Your task to perform on an android device: uninstall "Google Home" Image 0: 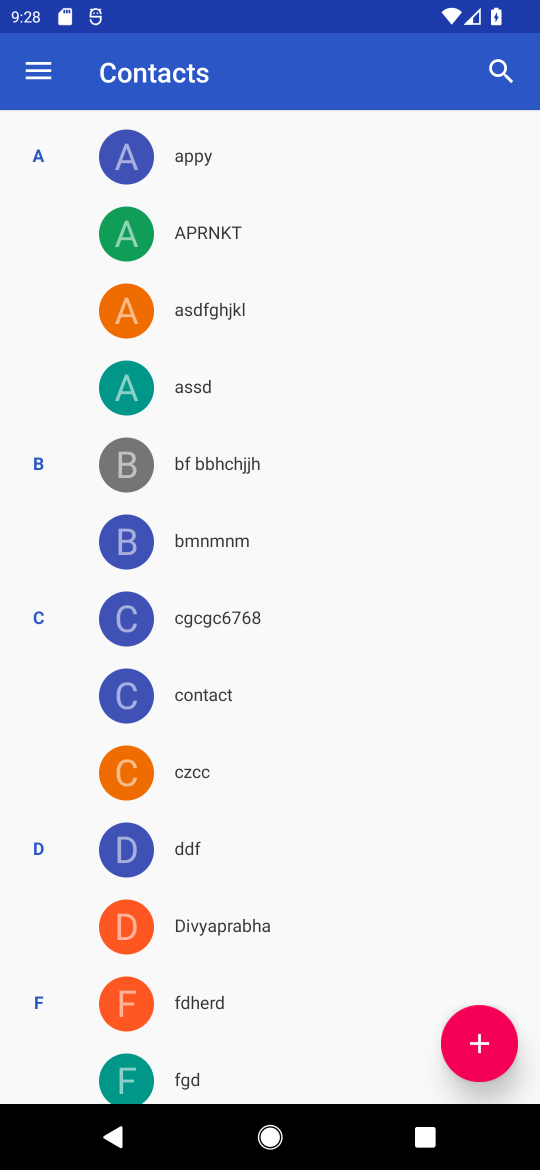
Step 0: press home button
Your task to perform on an android device: uninstall "Google Home" Image 1: 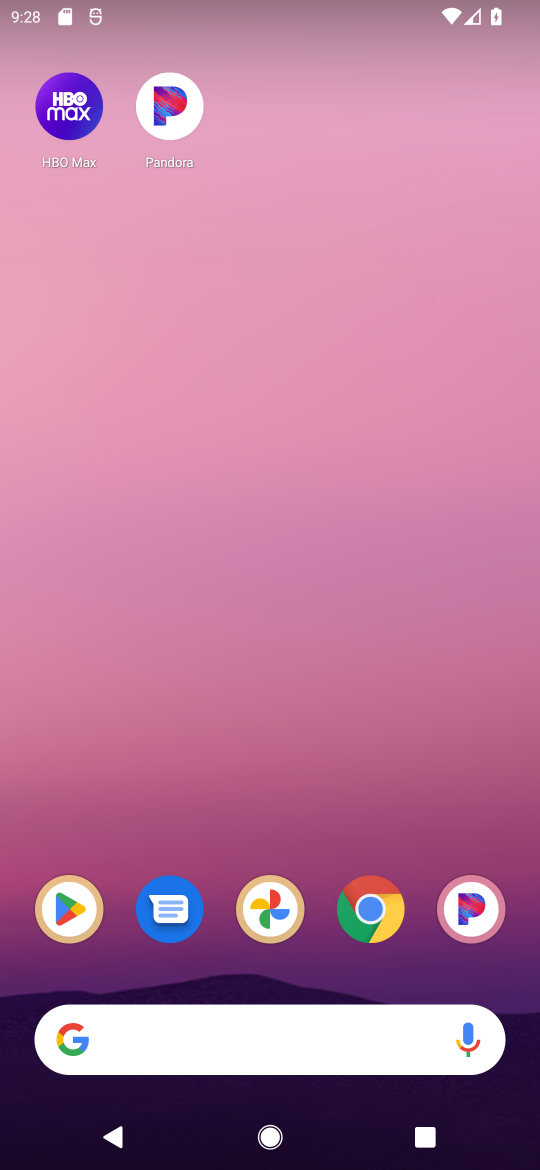
Step 1: click (68, 908)
Your task to perform on an android device: uninstall "Google Home" Image 2: 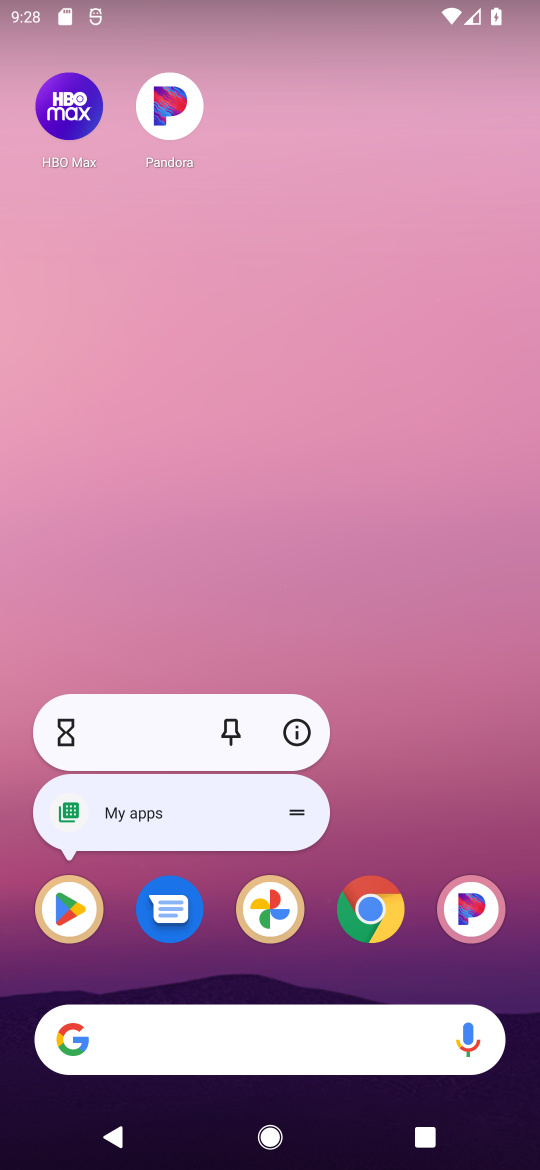
Step 2: click (63, 909)
Your task to perform on an android device: uninstall "Google Home" Image 3: 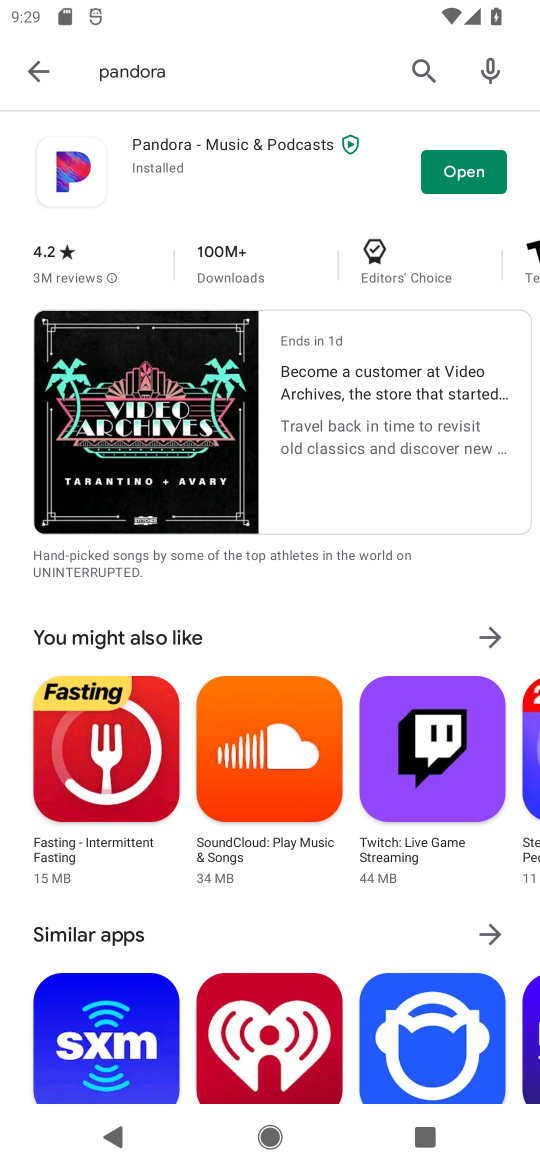
Step 3: click (198, 75)
Your task to perform on an android device: uninstall "Google Home" Image 4: 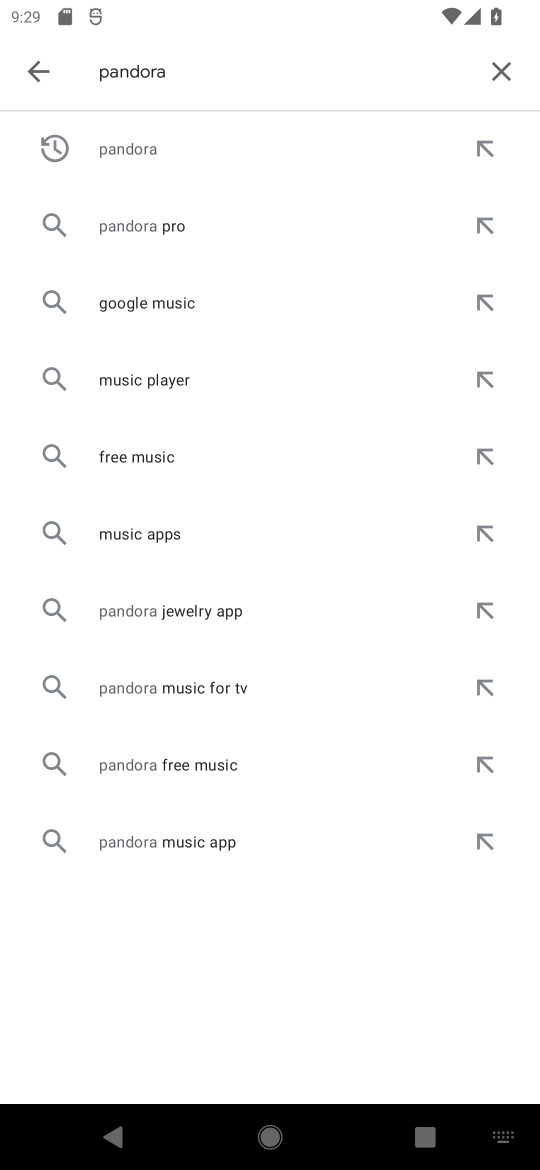
Step 4: click (500, 66)
Your task to perform on an android device: uninstall "Google Home" Image 5: 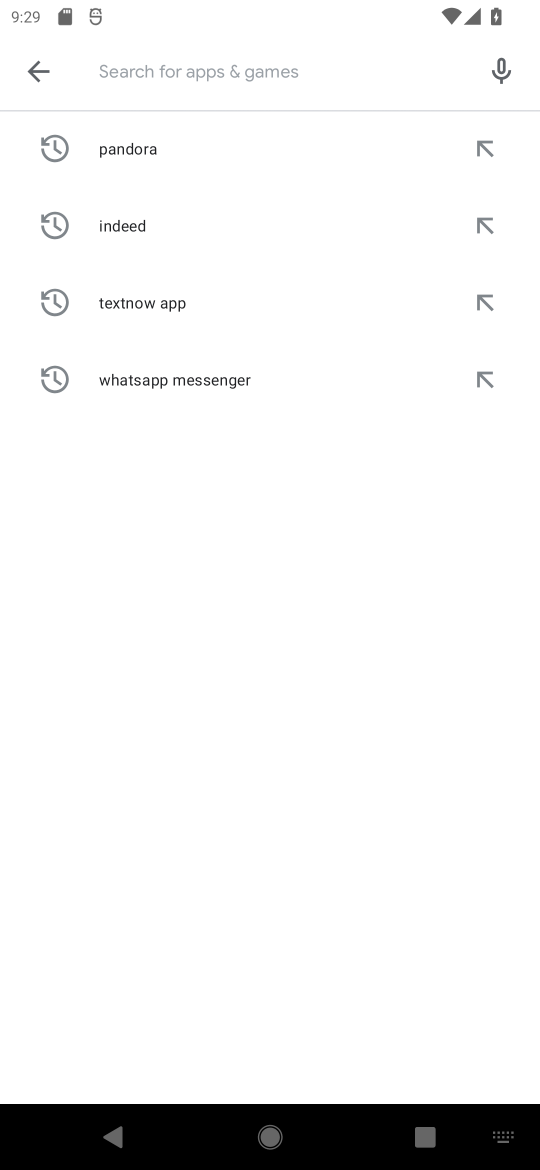
Step 5: type "google home"
Your task to perform on an android device: uninstall "Google Home" Image 6: 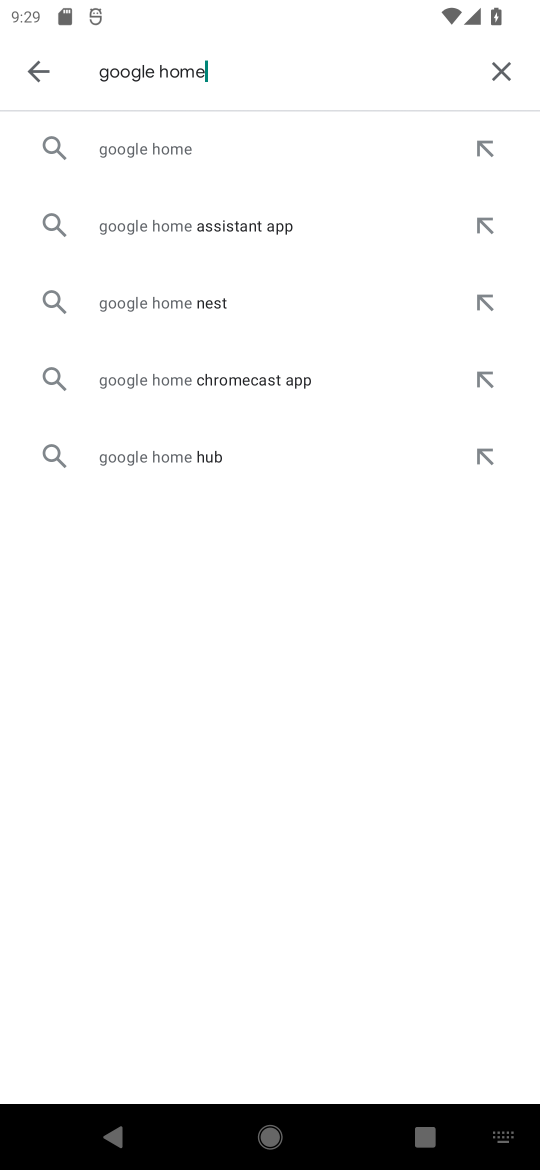
Step 6: click (114, 170)
Your task to perform on an android device: uninstall "Google Home" Image 7: 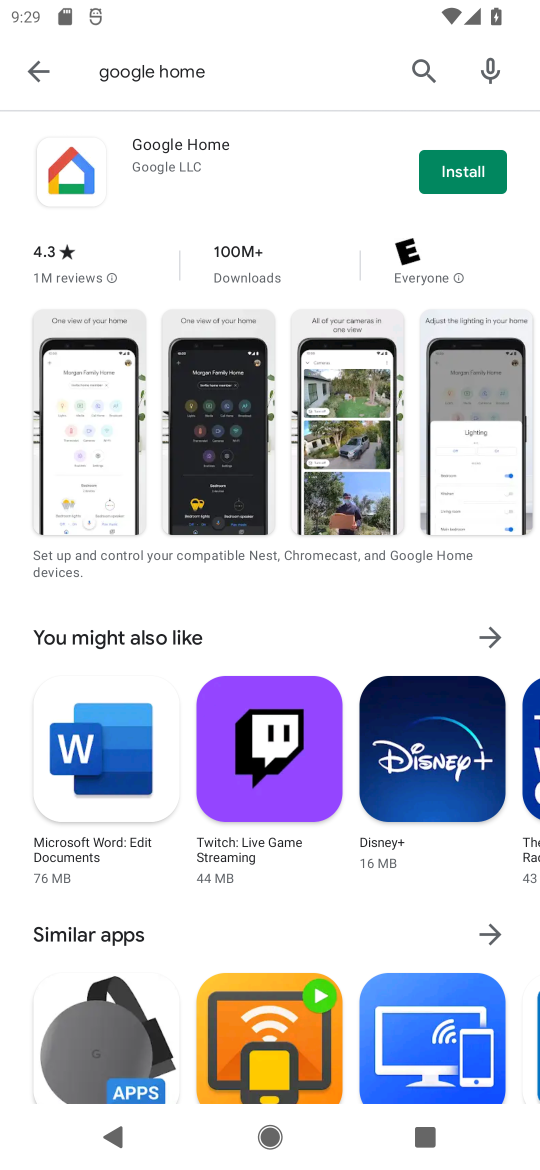
Step 7: task complete